Your task to perform on an android device: Show me popular videos on Youtube Image 0: 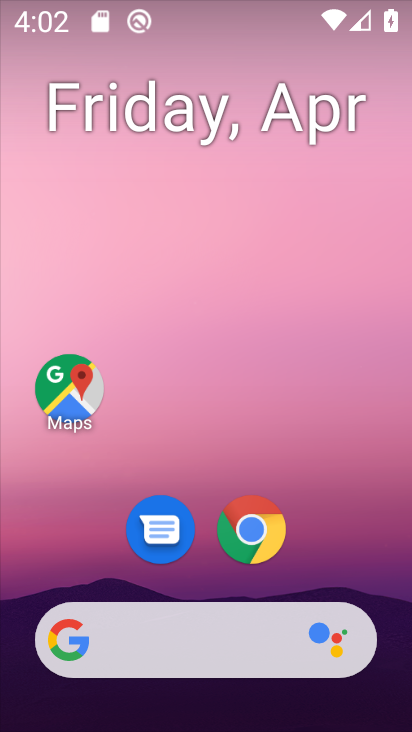
Step 0: drag from (211, 568) to (186, 112)
Your task to perform on an android device: Show me popular videos on Youtube Image 1: 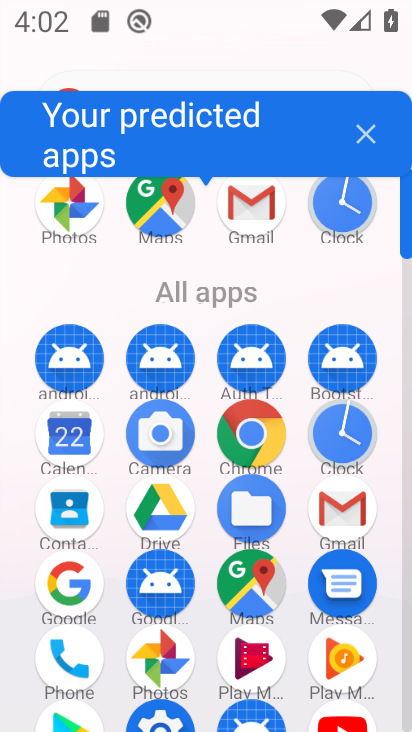
Step 1: drag from (292, 622) to (275, 270)
Your task to perform on an android device: Show me popular videos on Youtube Image 2: 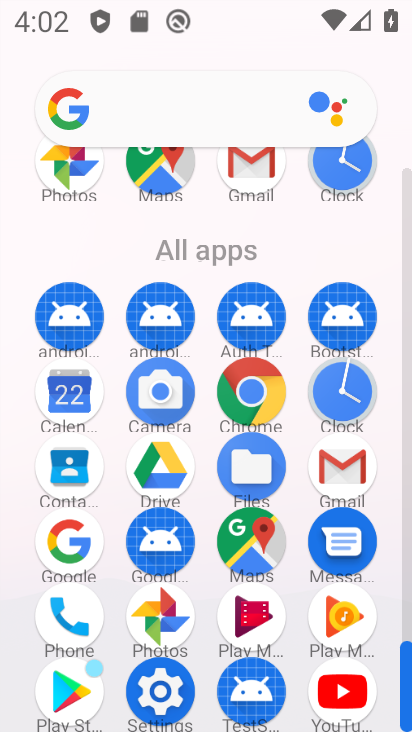
Step 2: click (340, 686)
Your task to perform on an android device: Show me popular videos on Youtube Image 3: 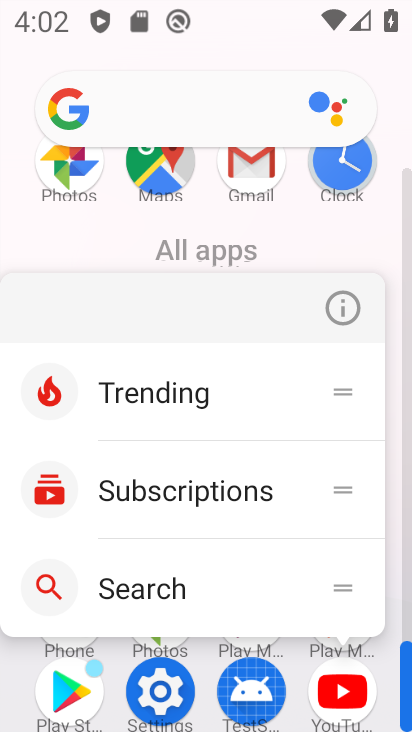
Step 3: click (295, 669)
Your task to perform on an android device: Show me popular videos on Youtube Image 4: 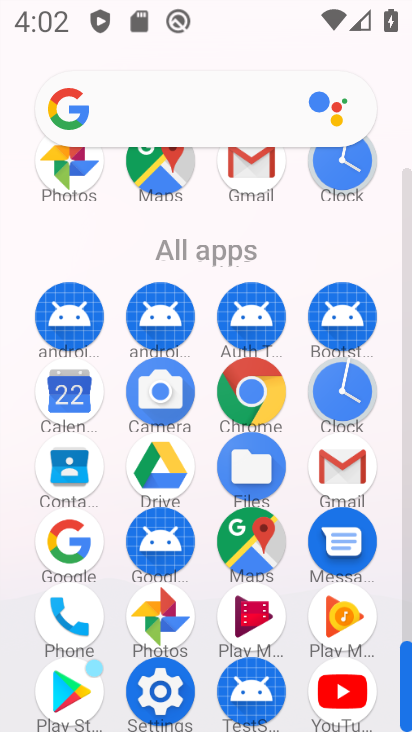
Step 4: click (340, 688)
Your task to perform on an android device: Show me popular videos on Youtube Image 5: 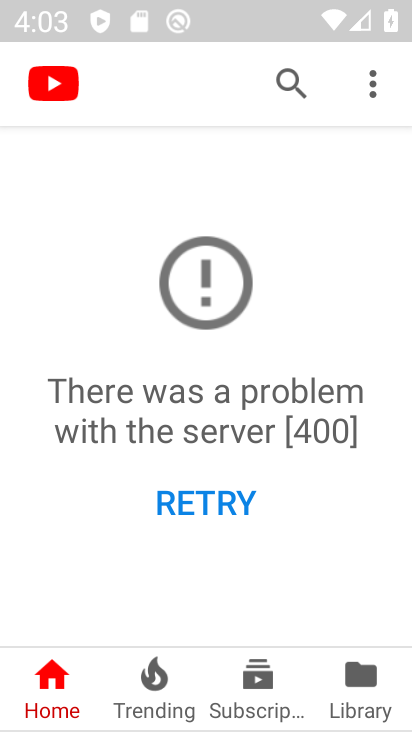
Step 5: click (150, 672)
Your task to perform on an android device: Show me popular videos on Youtube Image 6: 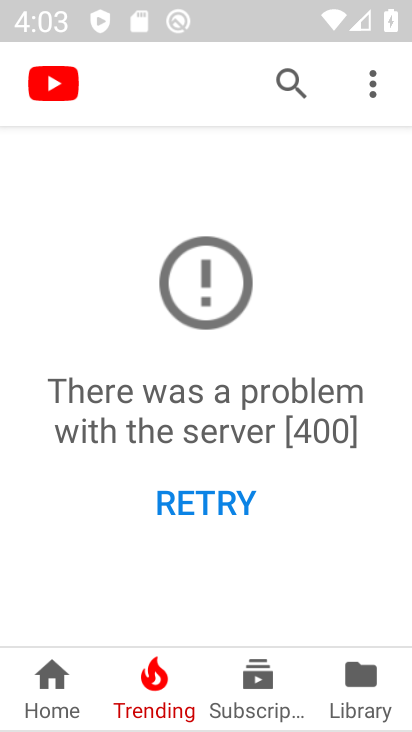
Step 6: task complete